Your task to perform on an android device: What's on my calendar today? Image 0: 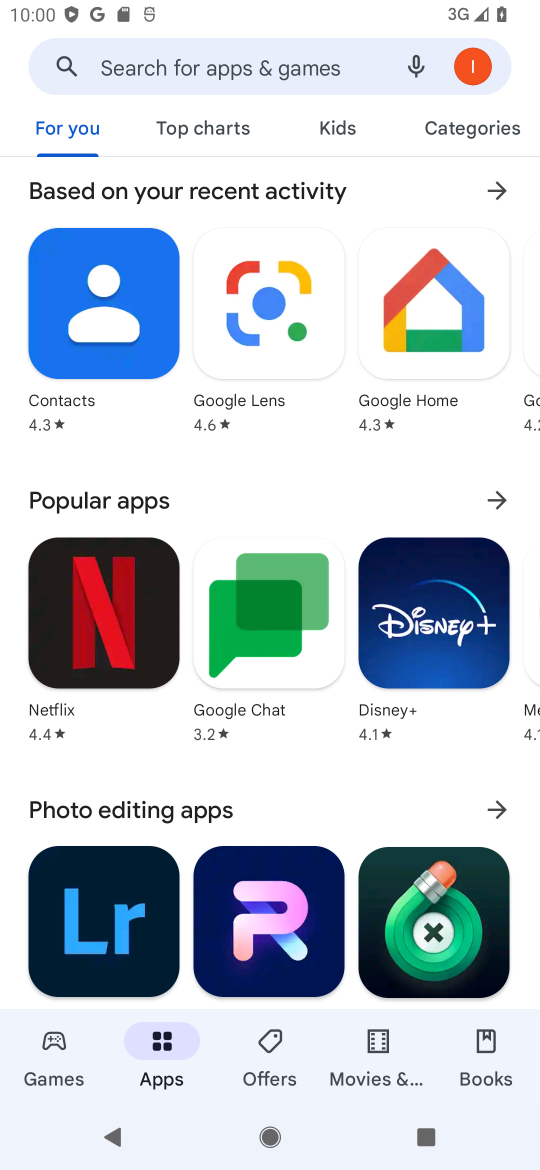
Step 0: press home button
Your task to perform on an android device: What's on my calendar today? Image 1: 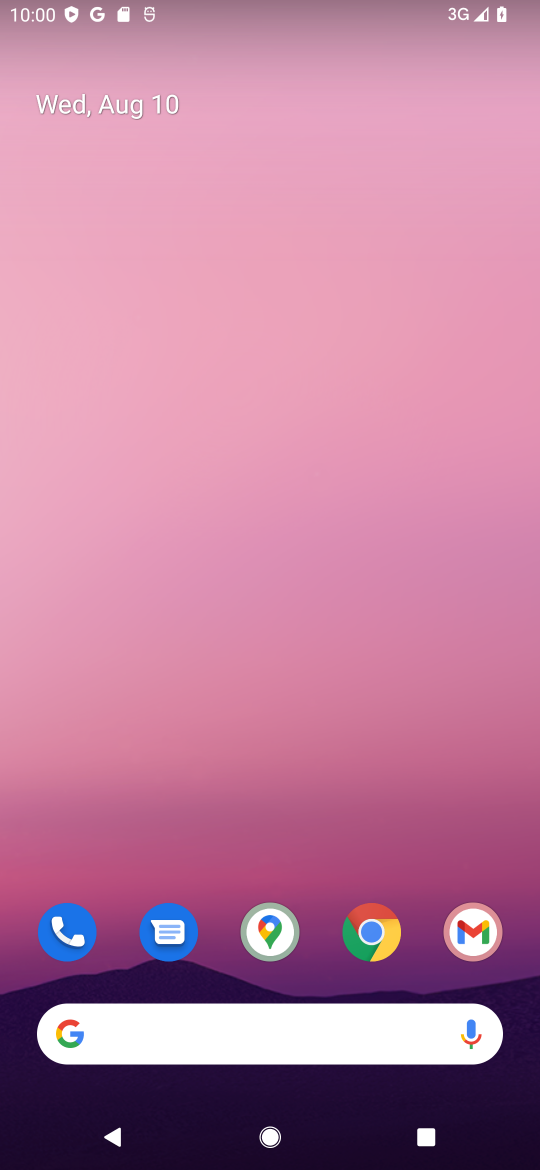
Step 1: drag from (332, 877) to (232, 252)
Your task to perform on an android device: What's on my calendar today? Image 2: 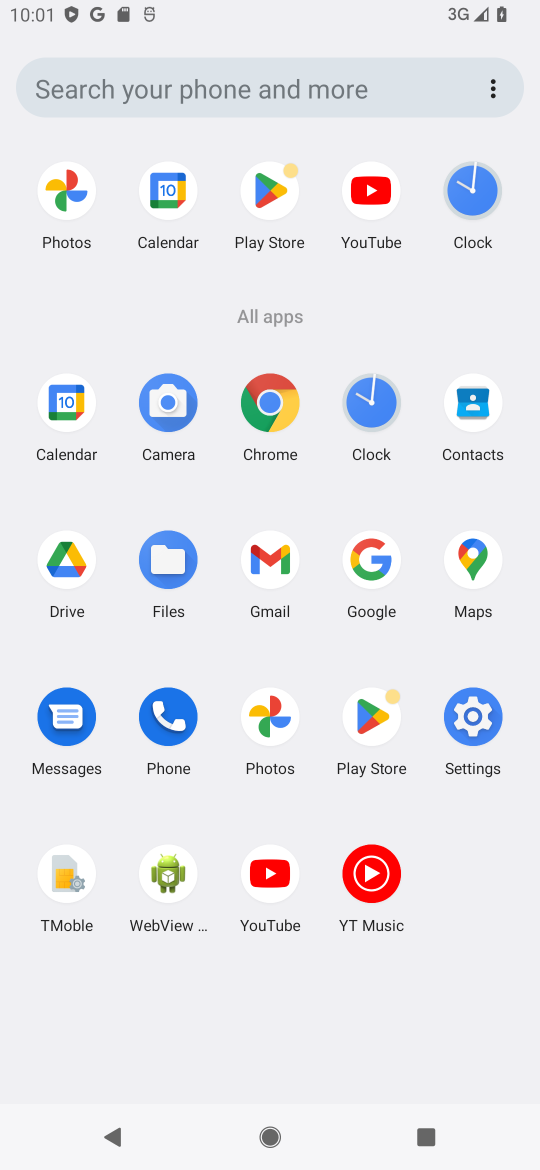
Step 2: click (61, 393)
Your task to perform on an android device: What's on my calendar today? Image 3: 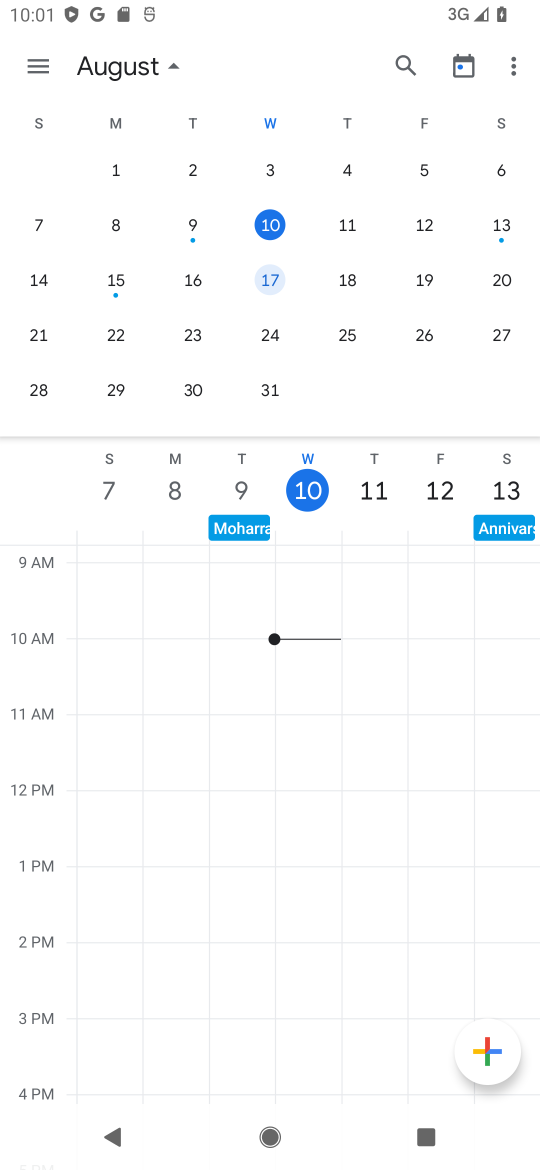
Step 3: click (265, 225)
Your task to perform on an android device: What's on my calendar today? Image 4: 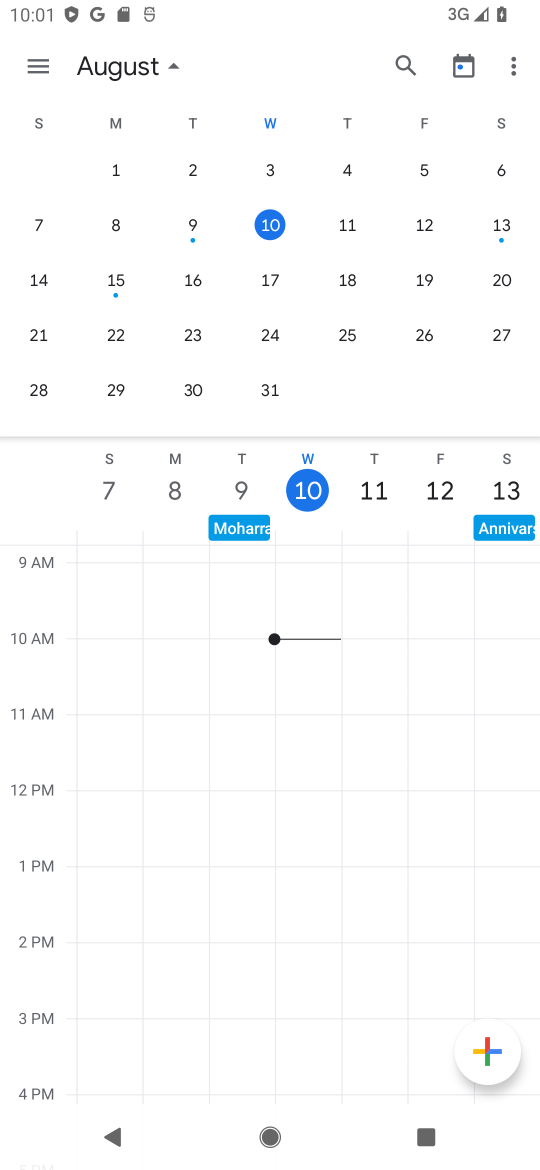
Step 4: click (302, 478)
Your task to perform on an android device: What's on my calendar today? Image 5: 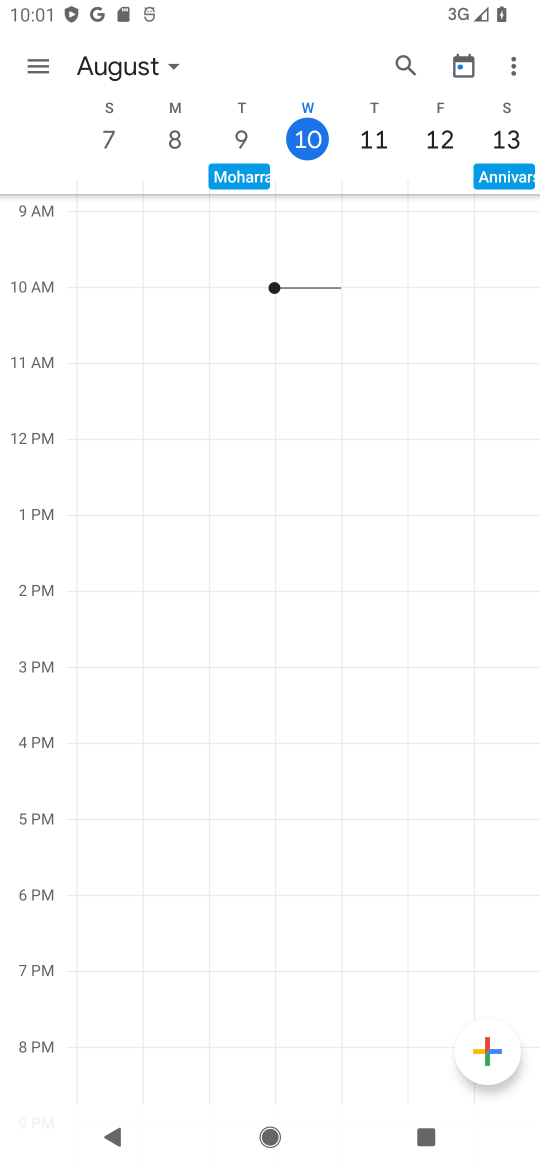
Step 5: click (307, 131)
Your task to perform on an android device: What's on my calendar today? Image 6: 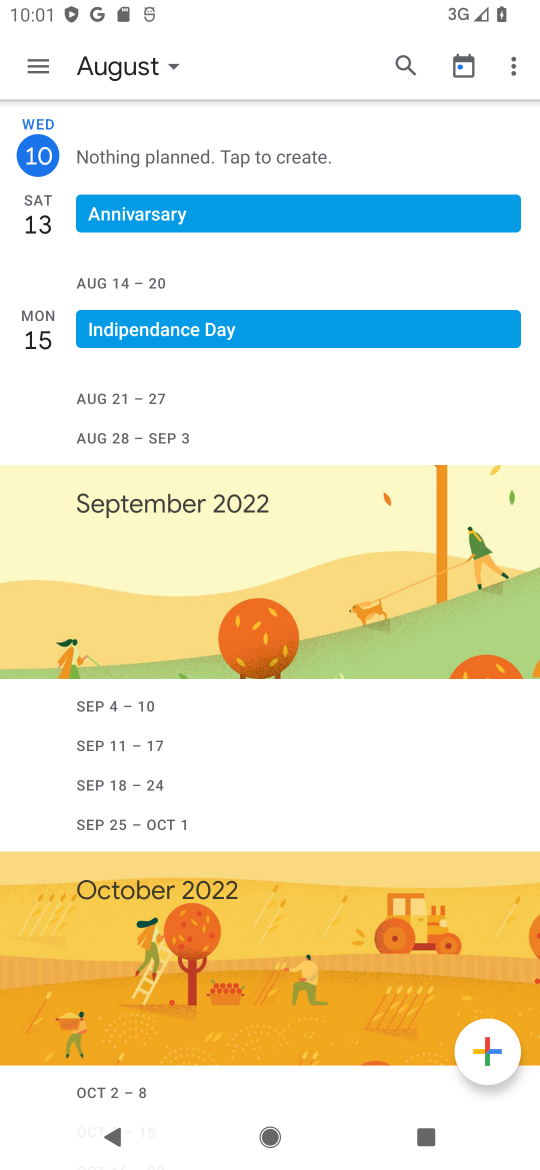
Step 6: click (301, 128)
Your task to perform on an android device: What's on my calendar today? Image 7: 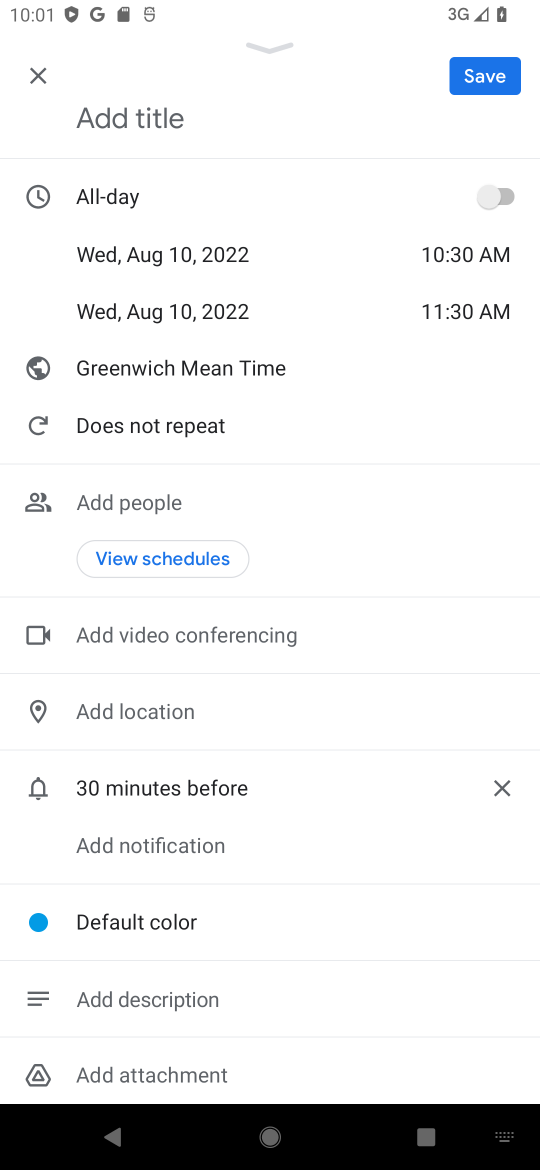
Step 7: task complete